Your task to perform on an android device: check out phone information Image 0: 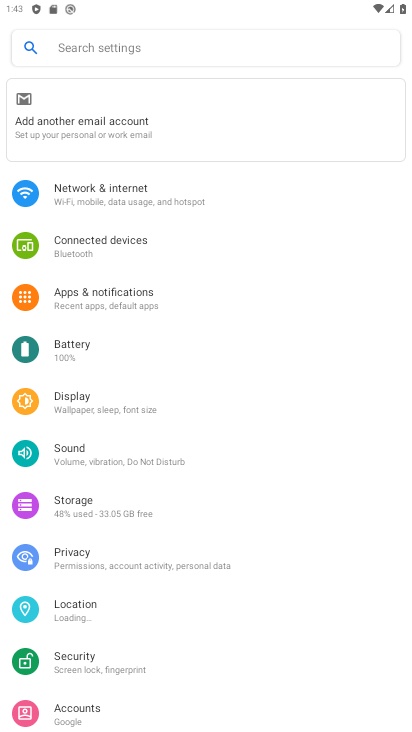
Step 0: drag from (194, 426) to (193, 214)
Your task to perform on an android device: check out phone information Image 1: 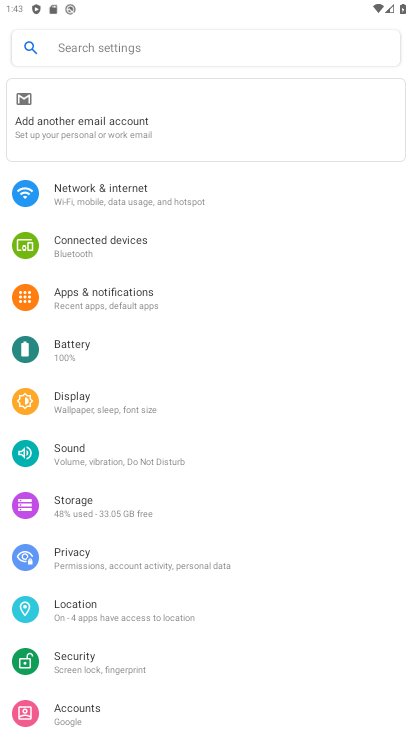
Step 1: drag from (261, 605) to (281, 299)
Your task to perform on an android device: check out phone information Image 2: 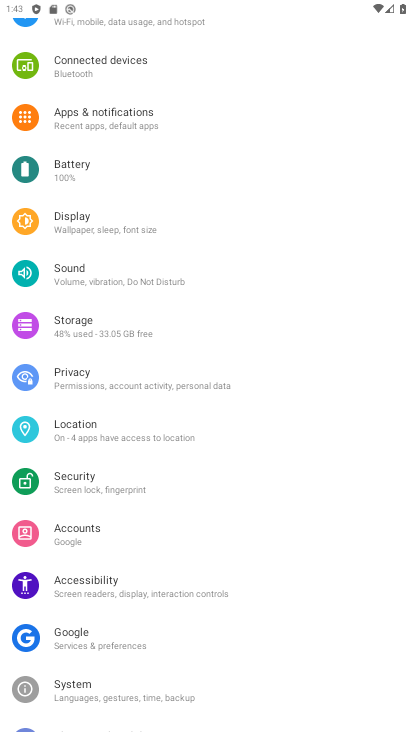
Step 2: drag from (200, 661) to (195, 371)
Your task to perform on an android device: check out phone information Image 3: 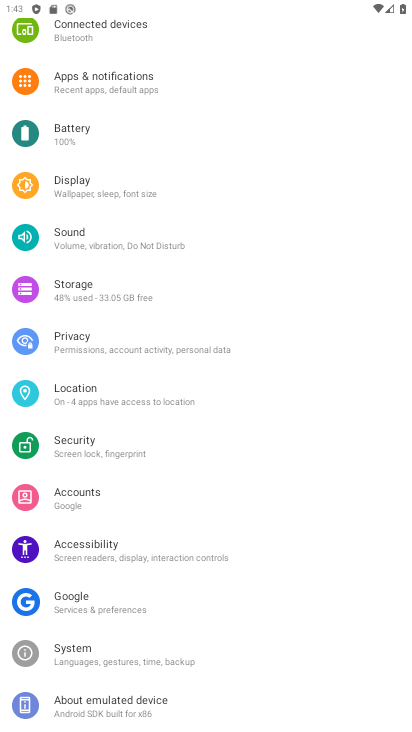
Step 3: click (113, 716)
Your task to perform on an android device: check out phone information Image 4: 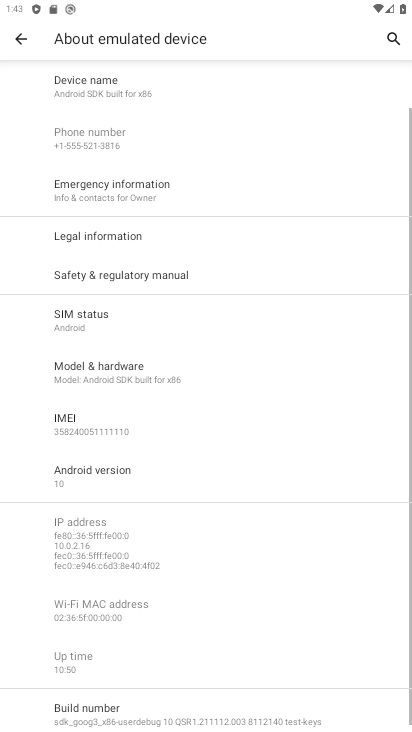
Step 4: click (319, 308)
Your task to perform on an android device: check out phone information Image 5: 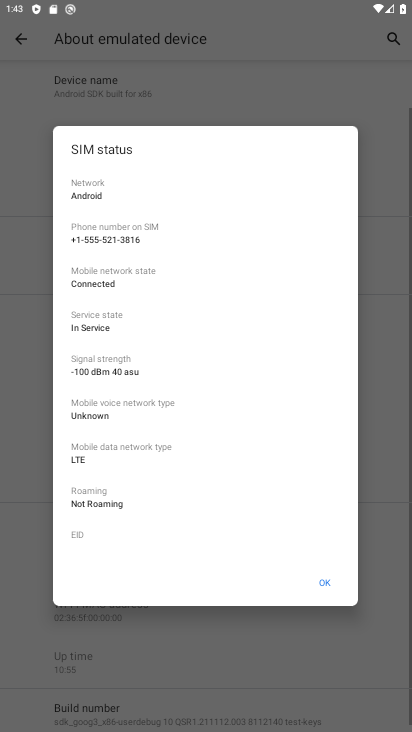
Step 5: click (320, 586)
Your task to perform on an android device: check out phone information Image 6: 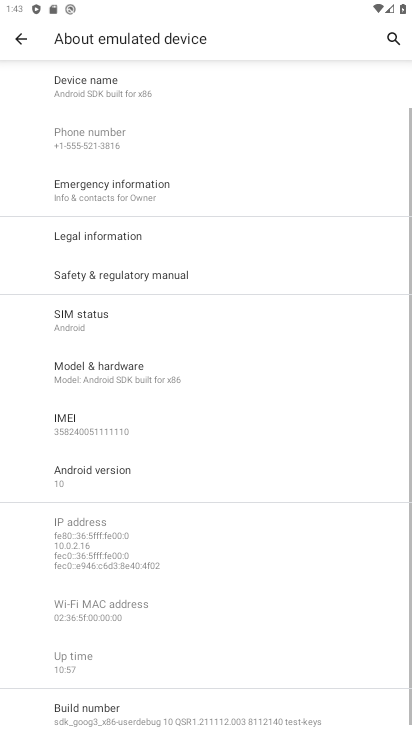
Step 6: task complete